Your task to perform on an android device: Show me the alarms in the clock app Image 0: 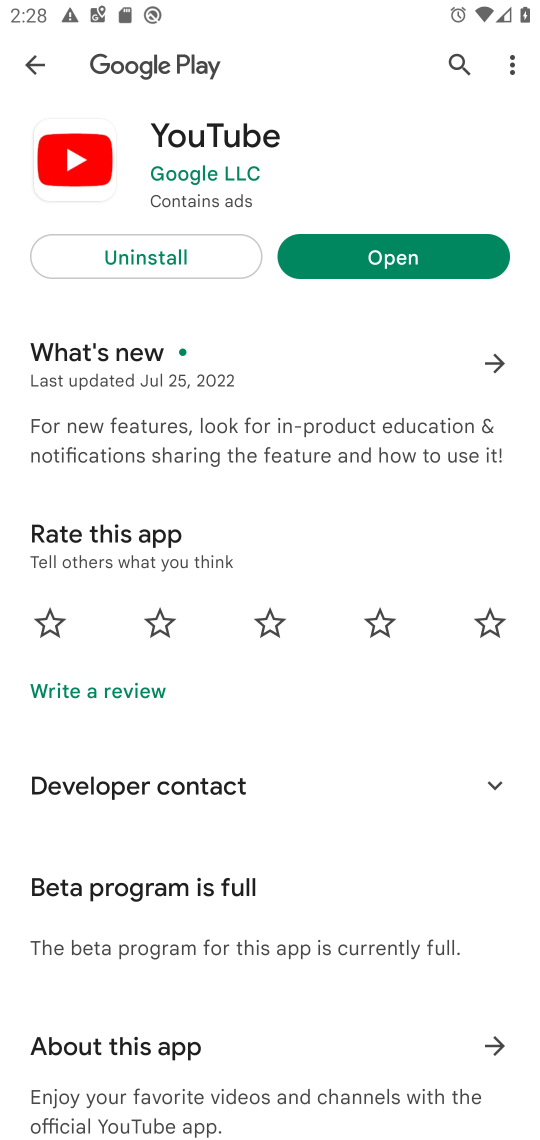
Step 0: press home button
Your task to perform on an android device: Show me the alarms in the clock app Image 1: 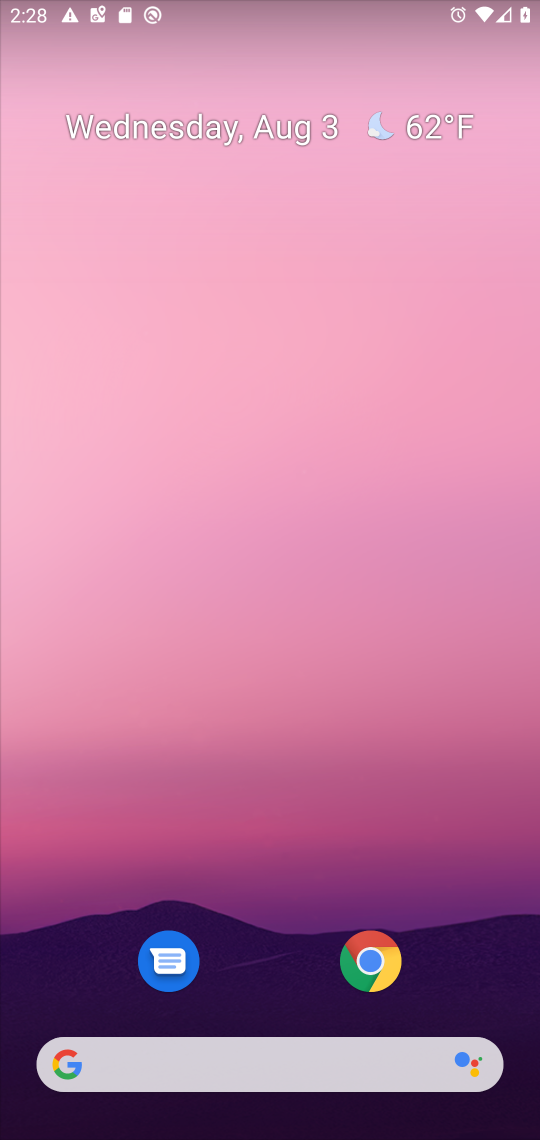
Step 1: drag from (271, 979) to (264, 86)
Your task to perform on an android device: Show me the alarms in the clock app Image 2: 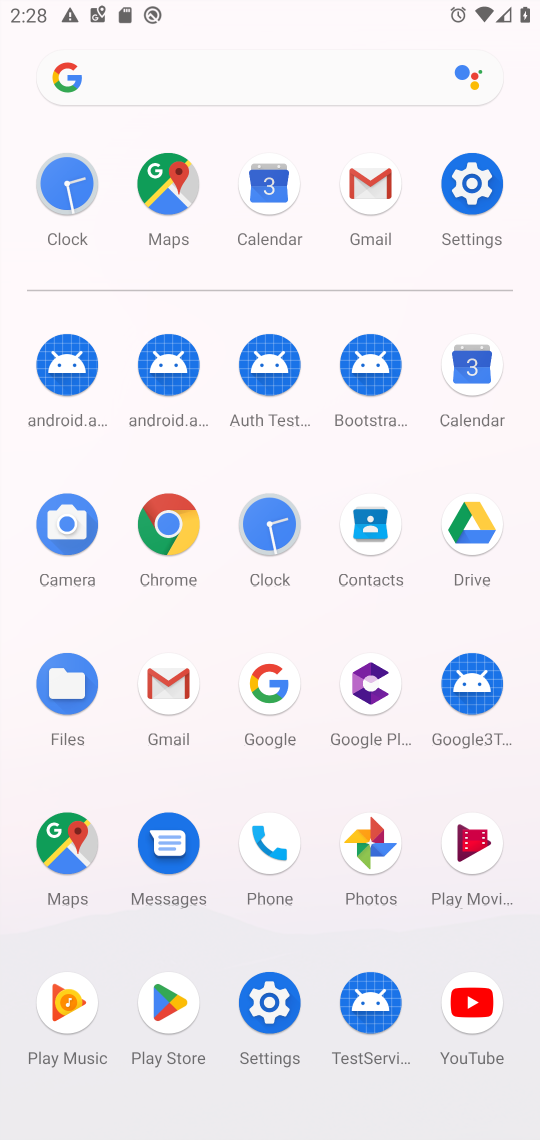
Step 2: click (274, 527)
Your task to perform on an android device: Show me the alarms in the clock app Image 3: 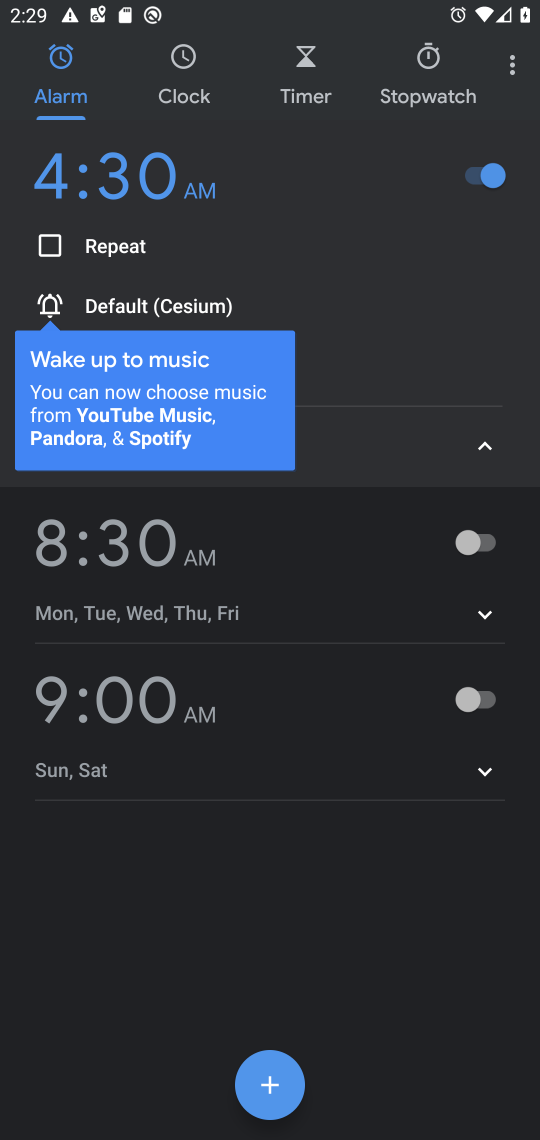
Step 3: task complete